Your task to perform on an android device: make emails show in primary in the gmail app Image 0: 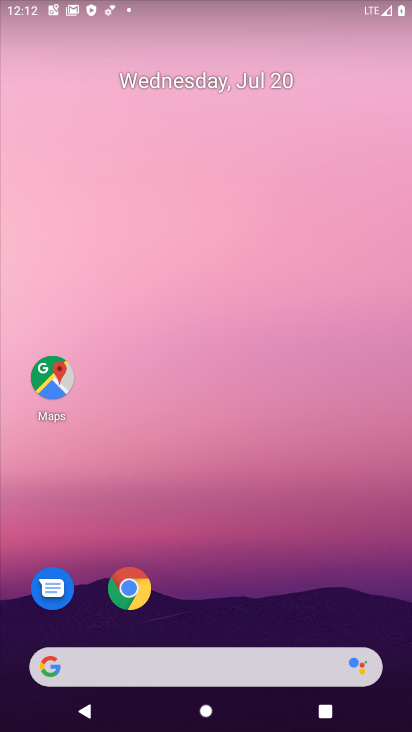
Step 0: drag from (392, 672) to (297, 162)
Your task to perform on an android device: make emails show in primary in the gmail app Image 1: 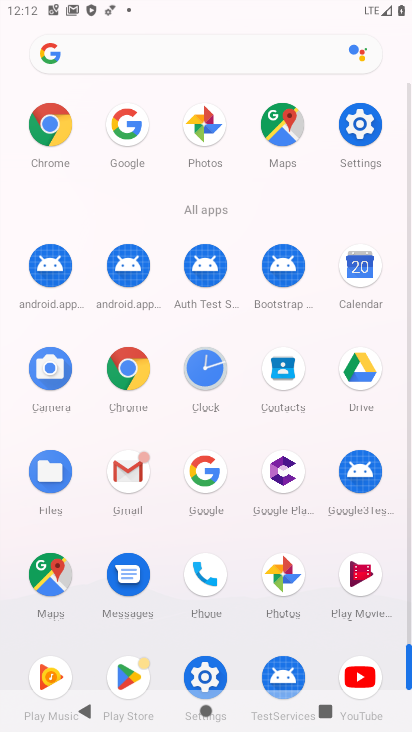
Step 1: click (137, 474)
Your task to perform on an android device: make emails show in primary in the gmail app Image 2: 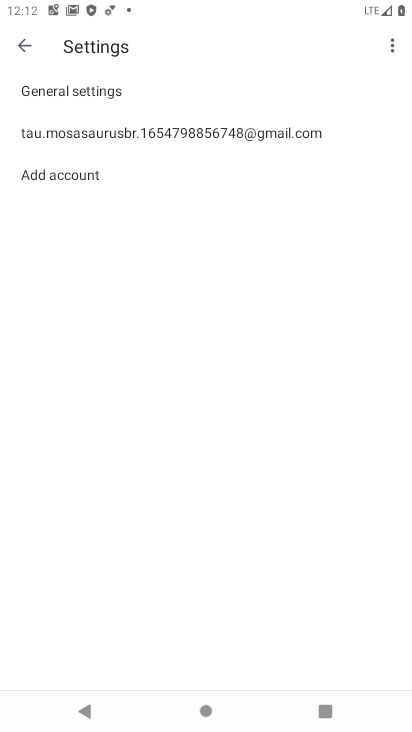
Step 2: click (153, 131)
Your task to perform on an android device: make emails show in primary in the gmail app Image 3: 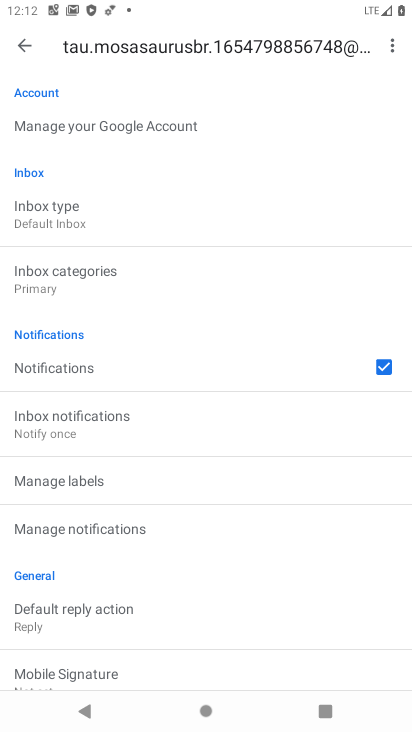
Step 3: click (46, 221)
Your task to perform on an android device: make emails show in primary in the gmail app Image 4: 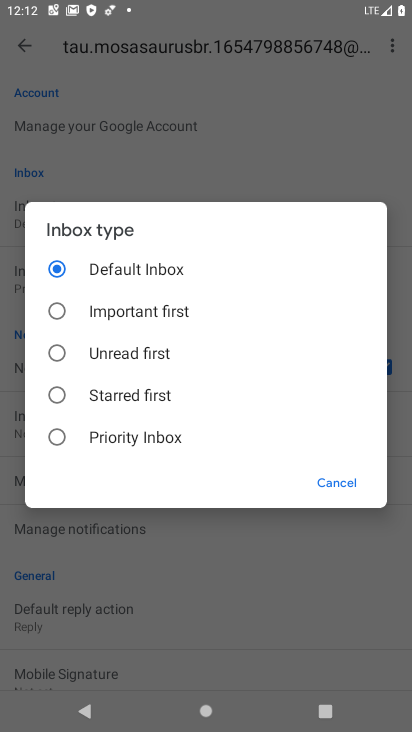
Step 4: click (131, 268)
Your task to perform on an android device: make emails show in primary in the gmail app Image 5: 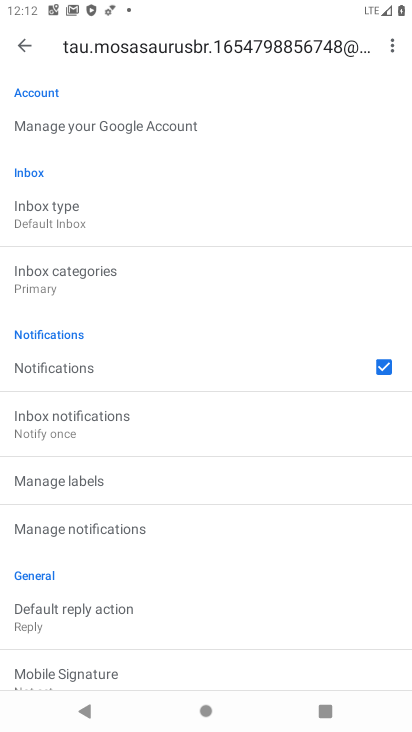
Step 5: click (341, 476)
Your task to perform on an android device: make emails show in primary in the gmail app Image 6: 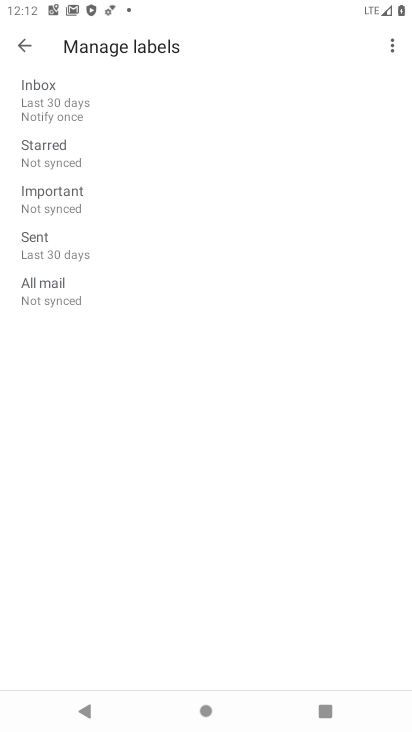
Step 6: click (25, 46)
Your task to perform on an android device: make emails show in primary in the gmail app Image 7: 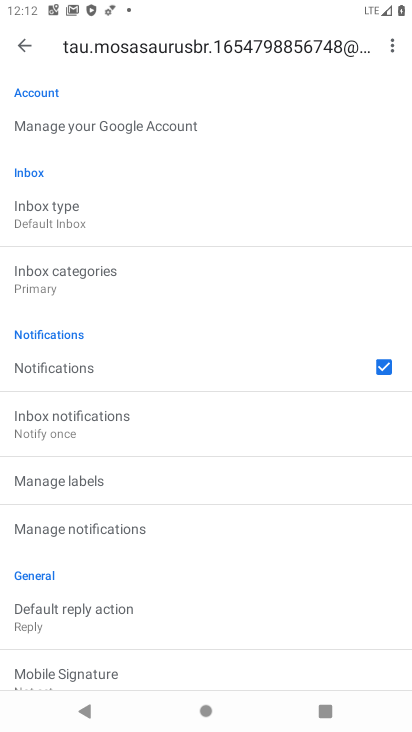
Step 7: task complete